Your task to perform on an android device: find which apps use the phone's location Image 0: 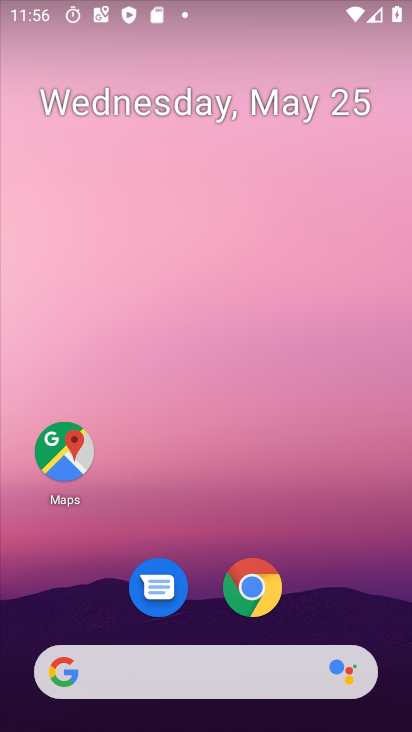
Step 0: drag from (206, 690) to (198, 136)
Your task to perform on an android device: find which apps use the phone's location Image 1: 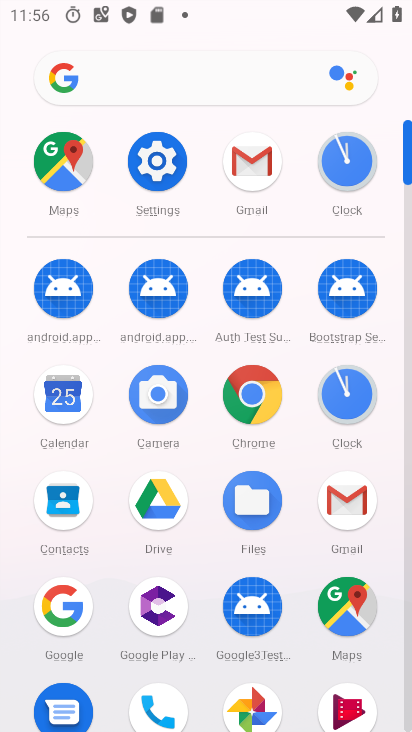
Step 1: click (154, 178)
Your task to perform on an android device: find which apps use the phone's location Image 2: 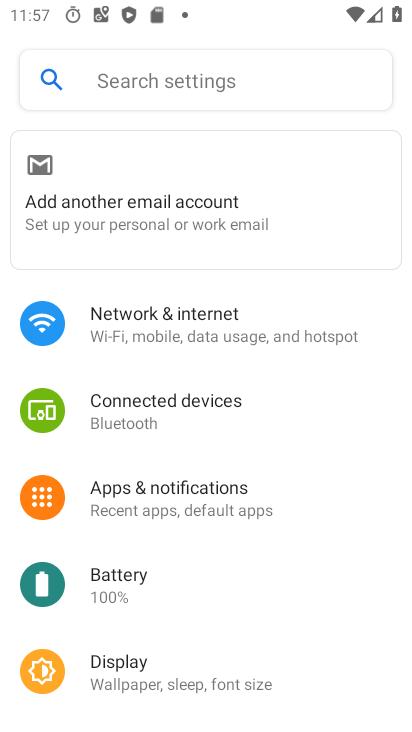
Step 2: click (199, 79)
Your task to perform on an android device: find which apps use the phone's location Image 3: 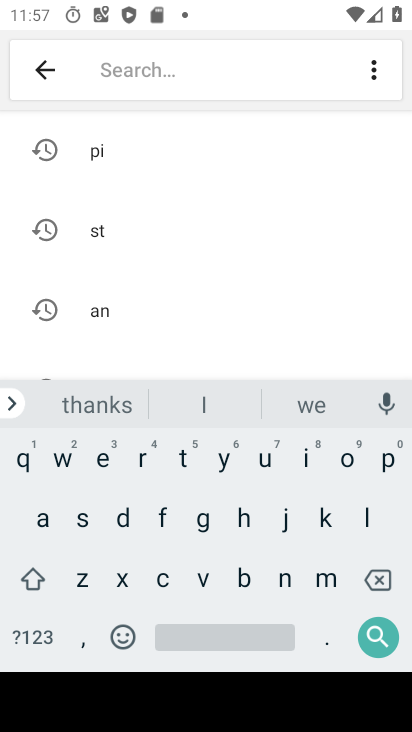
Step 3: click (370, 516)
Your task to perform on an android device: find which apps use the phone's location Image 4: 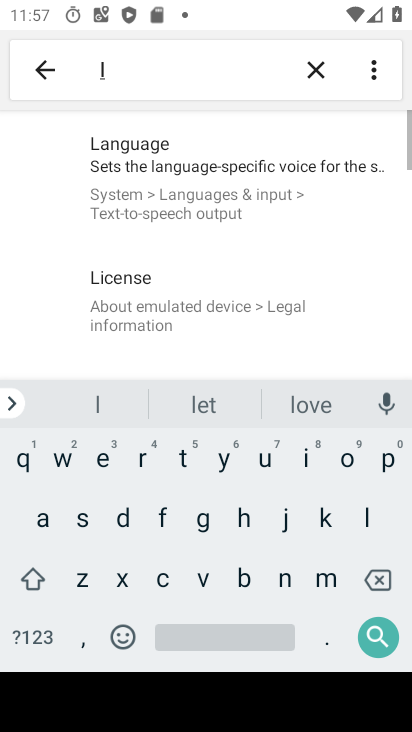
Step 4: click (345, 460)
Your task to perform on an android device: find which apps use the phone's location Image 5: 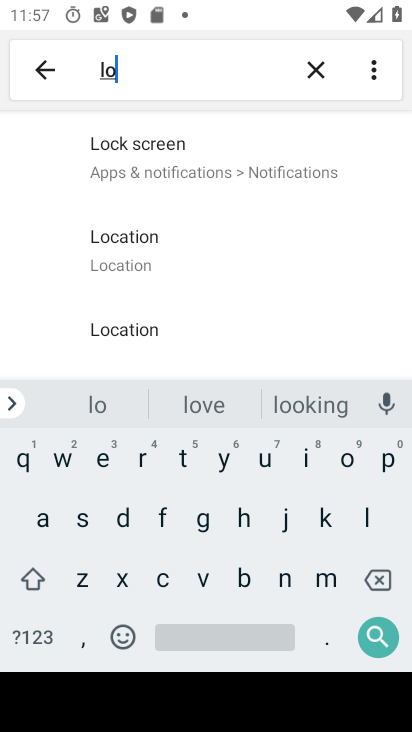
Step 5: click (161, 243)
Your task to perform on an android device: find which apps use the phone's location Image 6: 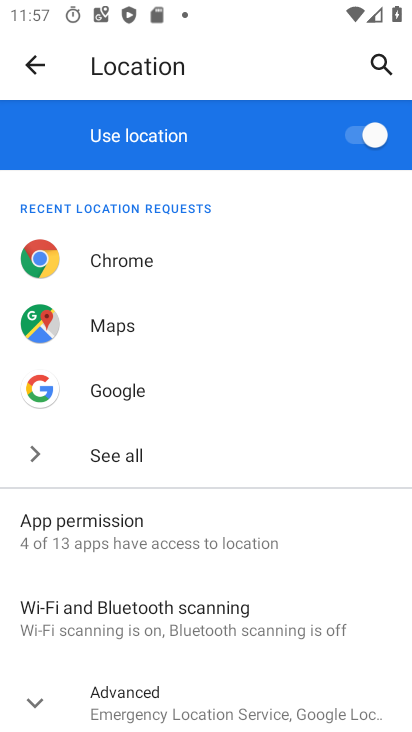
Step 6: task complete